Your task to perform on an android device: Go to Google maps Image 0: 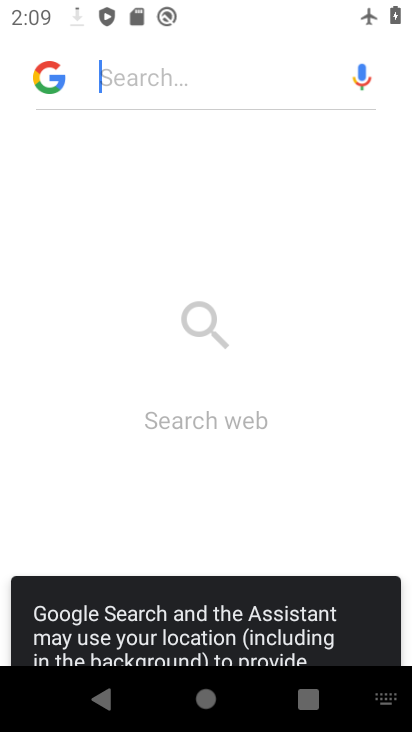
Step 0: press home button
Your task to perform on an android device: Go to Google maps Image 1: 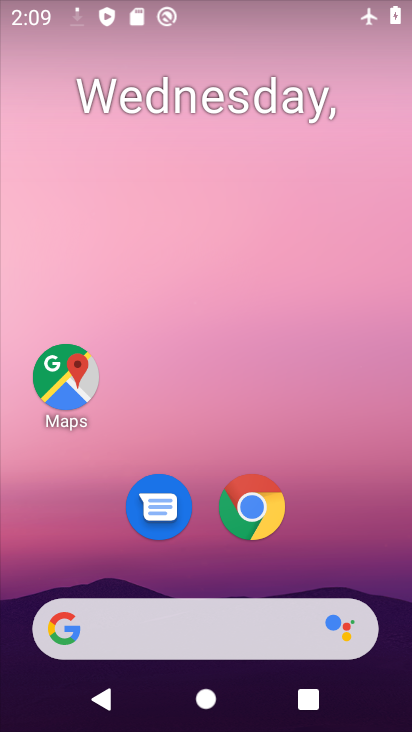
Step 1: click (79, 389)
Your task to perform on an android device: Go to Google maps Image 2: 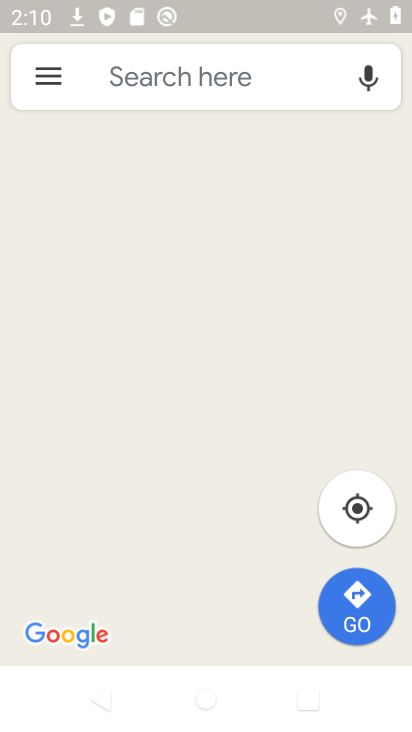
Step 2: task complete